Your task to perform on an android device: Open calendar and show me the fourth week of next month Image 0: 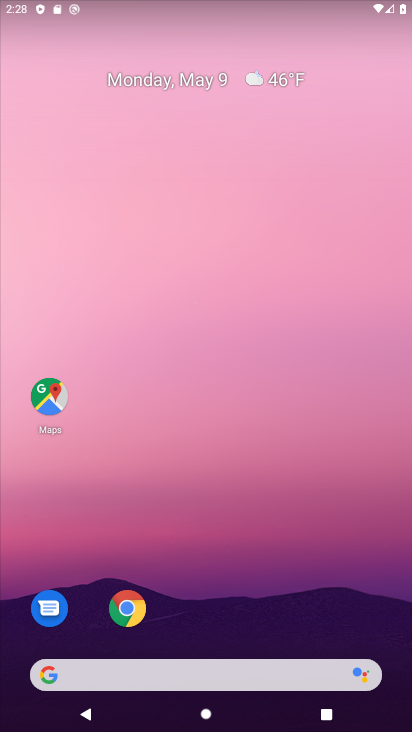
Step 0: drag from (227, 553) to (229, 177)
Your task to perform on an android device: Open calendar and show me the fourth week of next month Image 1: 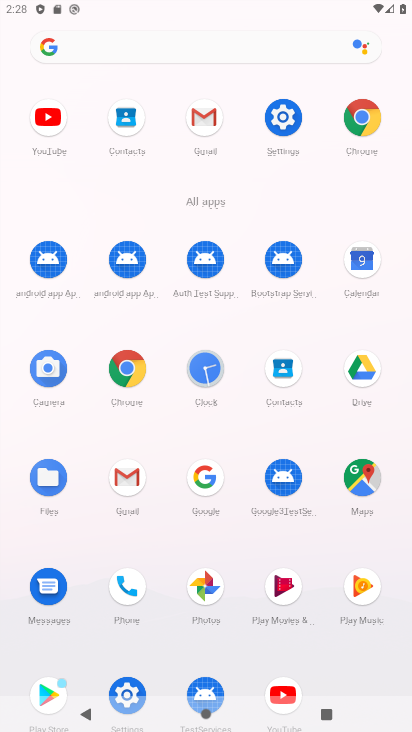
Step 1: click (368, 266)
Your task to perform on an android device: Open calendar and show me the fourth week of next month Image 2: 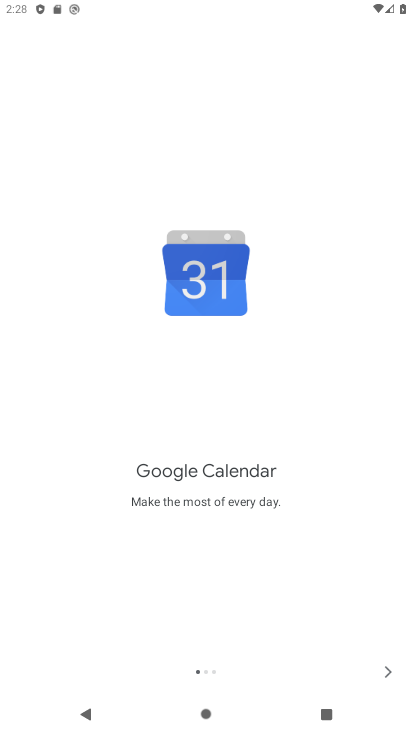
Step 2: click (397, 667)
Your task to perform on an android device: Open calendar and show me the fourth week of next month Image 3: 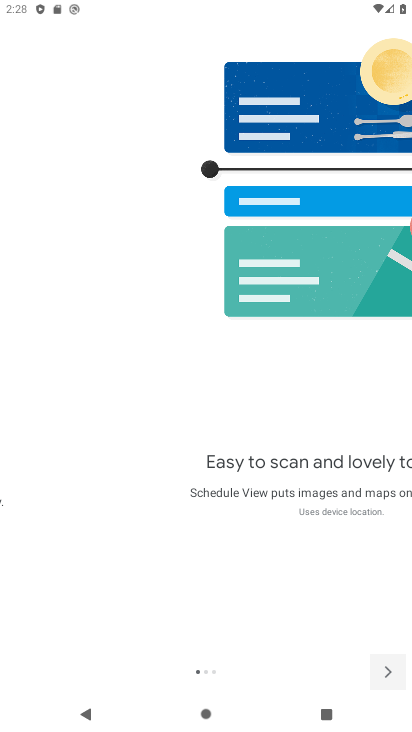
Step 3: click (397, 667)
Your task to perform on an android device: Open calendar and show me the fourth week of next month Image 4: 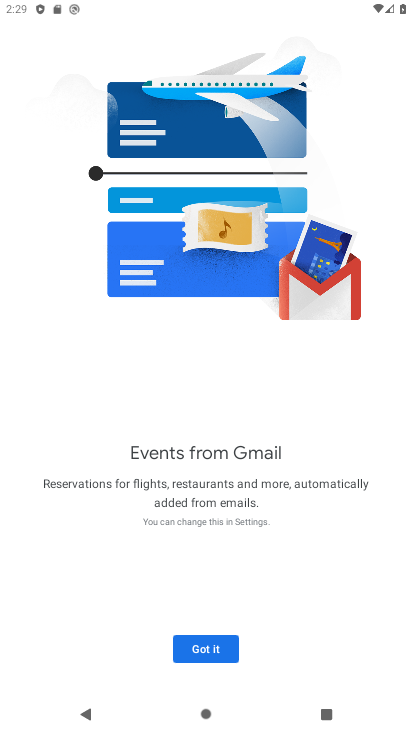
Step 4: click (201, 650)
Your task to perform on an android device: Open calendar and show me the fourth week of next month Image 5: 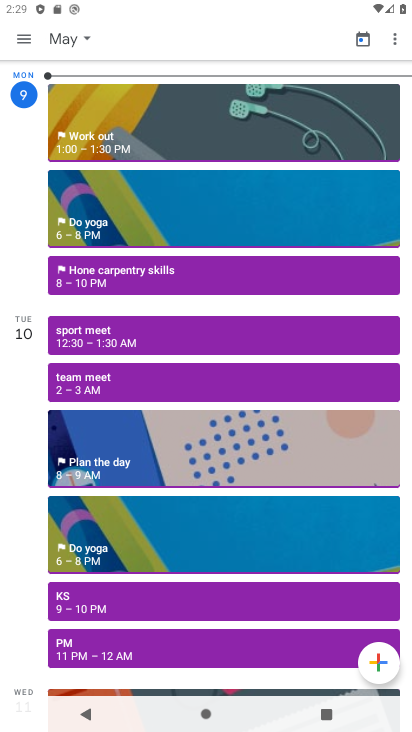
Step 5: click (72, 44)
Your task to perform on an android device: Open calendar and show me the fourth week of next month Image 6: 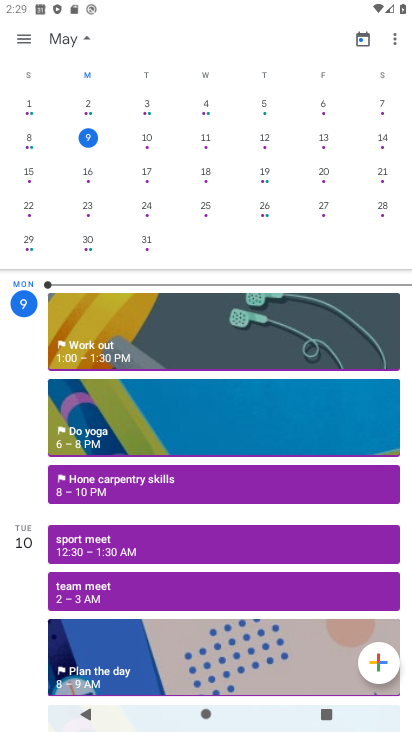
Step 6: drag from (344, 227) to (5, 197)
Your task to perform on an android device: Open calendar and show me the fourth week of next month Image 7: 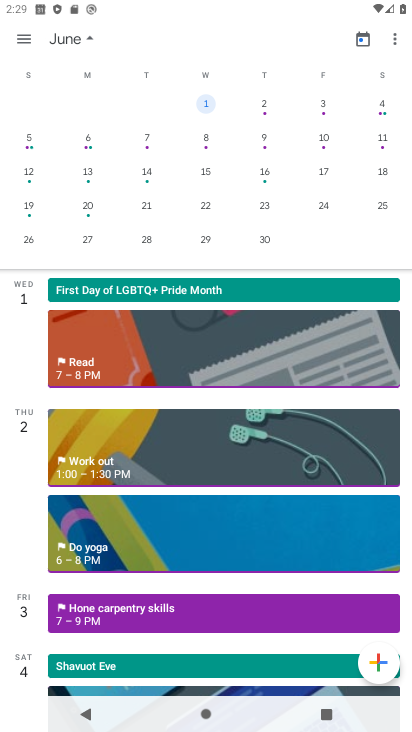
Step 7: click (197, 199)
Your task to perform on an android device: Open calendar and show me the fourth week of next month Image 8: 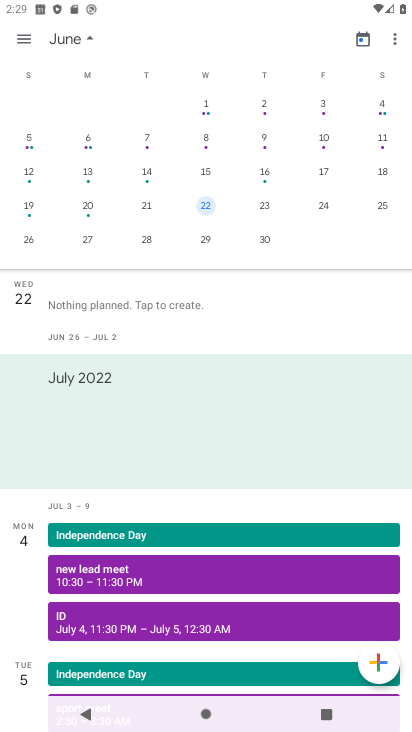
Step 8: click (27, 40)
Your task to perform on an android device: Open calendar and show me the fourth week of next month Image 9: 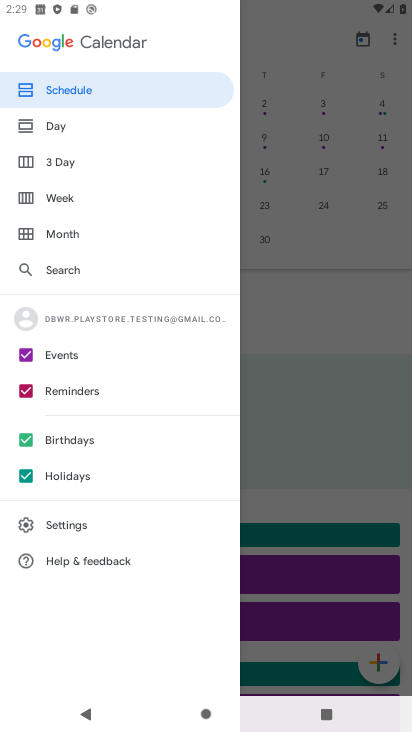
Step 9: click (88, 204)
Your task to perform on an android device: Open calendar and show me the fourth week of next month Image 10: 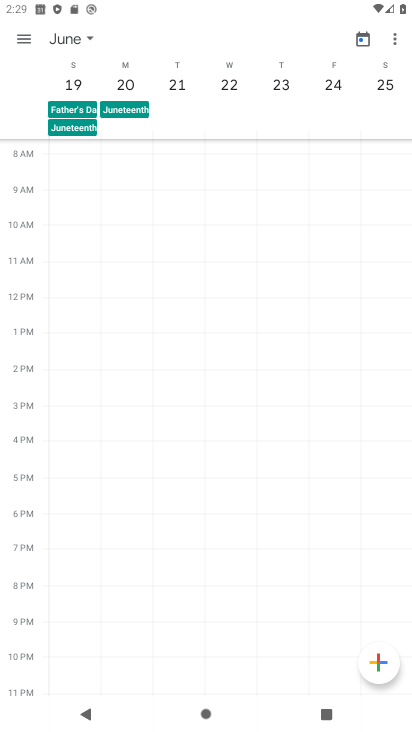
Step 10: task complete